Your task to perform on an android device: Open Google Chrome and click the shortcut for Amazon.com Image 0: 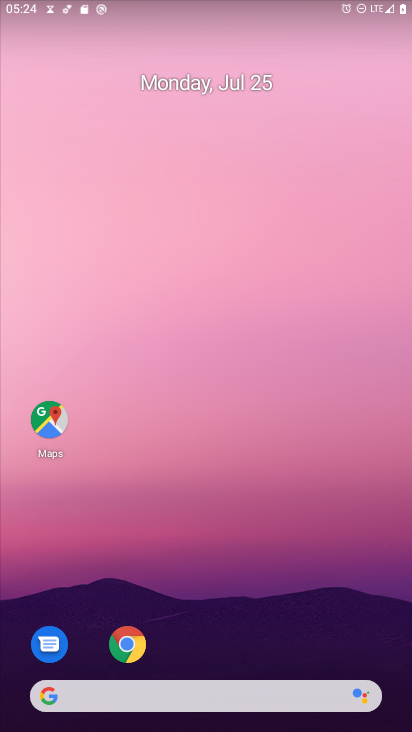
Step 0: press home button
Your task to perform on an android device: Open Google Chrome and click the shortcut for Amazon.com Image 1: 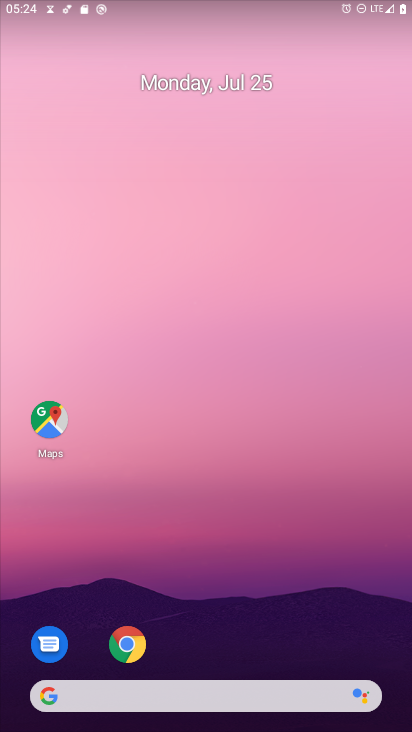
Step 1: drag from (309, 633) to (218, 28)
Your task to perform on an android device: Open Google Chrome and click the shortcut for Amazon.com Image 2: 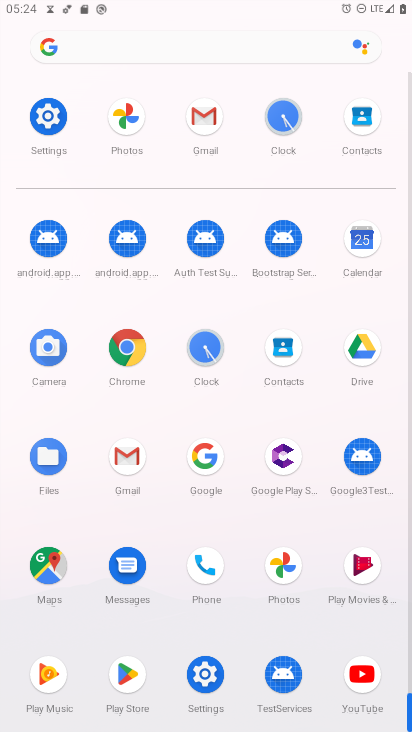
Step 2: click (132, 350)
Your task to perform on an android device: Open Google Chrome and click the shortcut for Amazon.com Image 3: 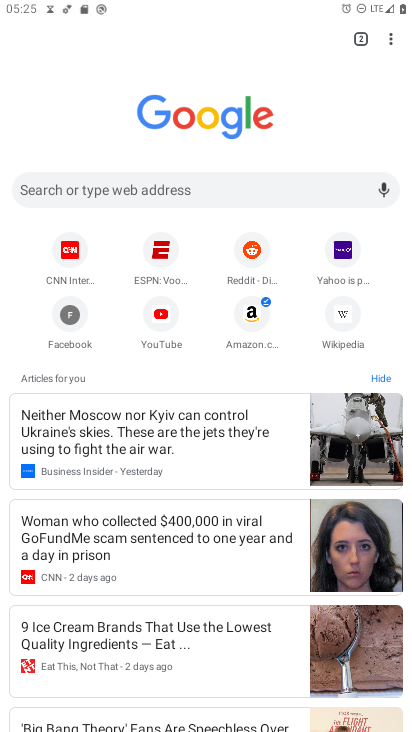
Step 3: click (244, 317)
Your task to perform on an android device: Open Google Chrome and click the shortcut for Amazon.com Image 4: 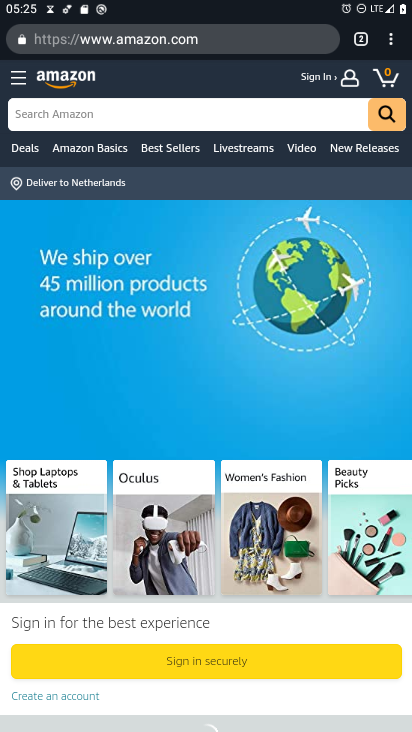
Step 4: task complete